Your task to perform on an android device: Go to network settings Image 0: 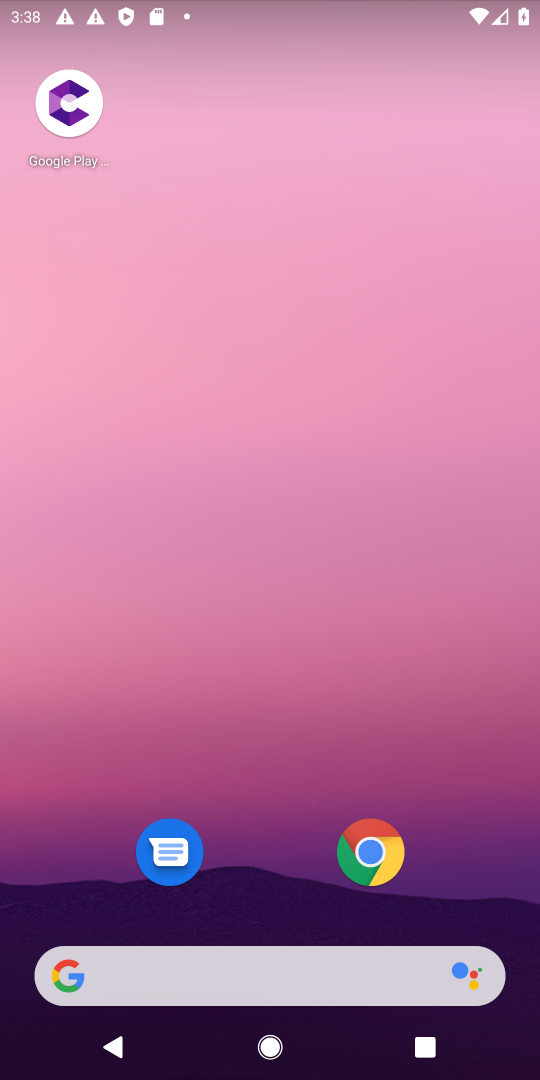
Step 0: drag from (280, 844) to (212, 54)
Your task to perform on an android device: Go to network settings Image 1: 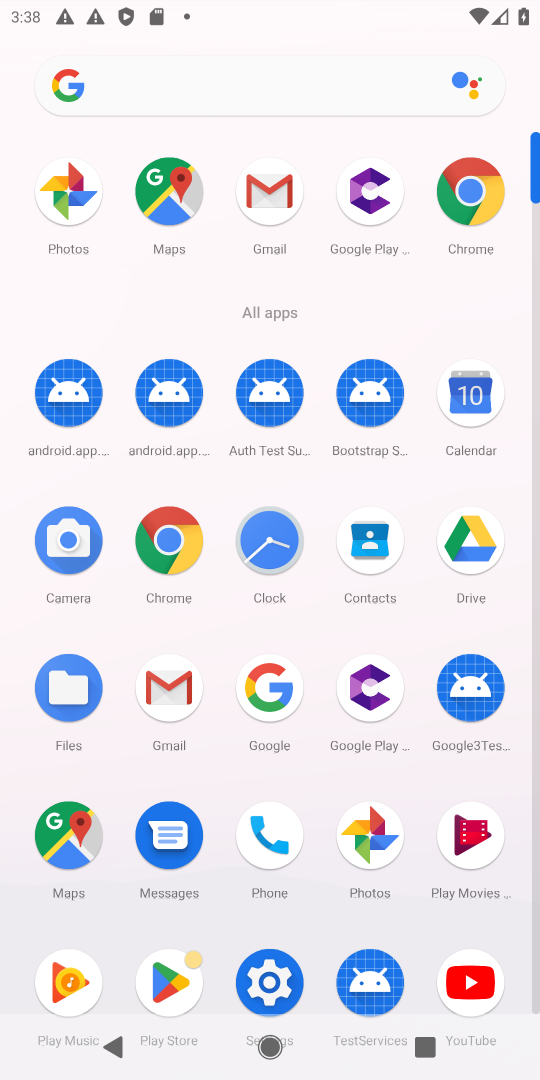
Step 1: click (268, 974)
Your task to perform on an android device: Go to network settings Image 2: 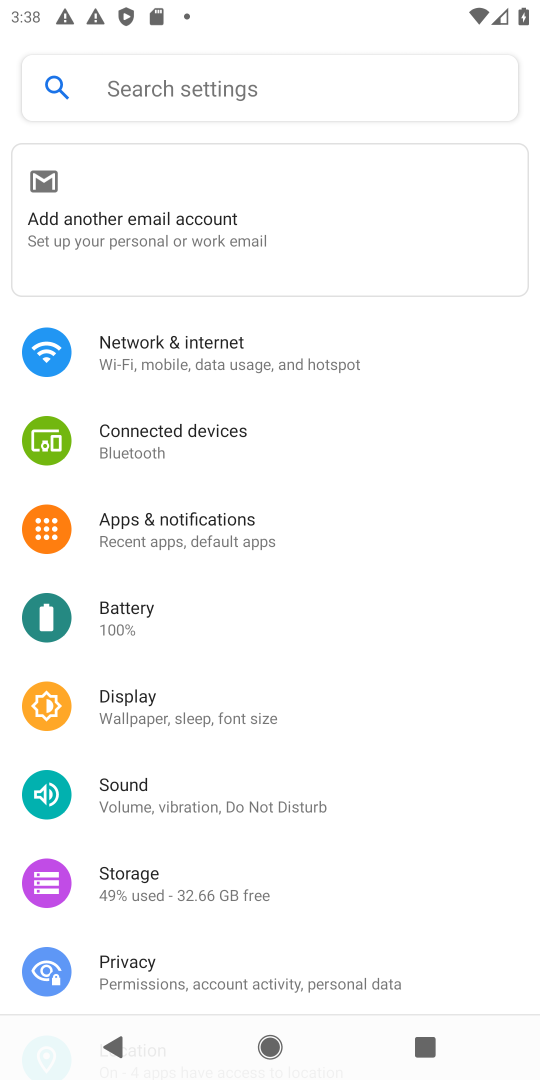
Step 2: click (166, 353)
Your task to perform on an android device: Go to network settings Image 3: 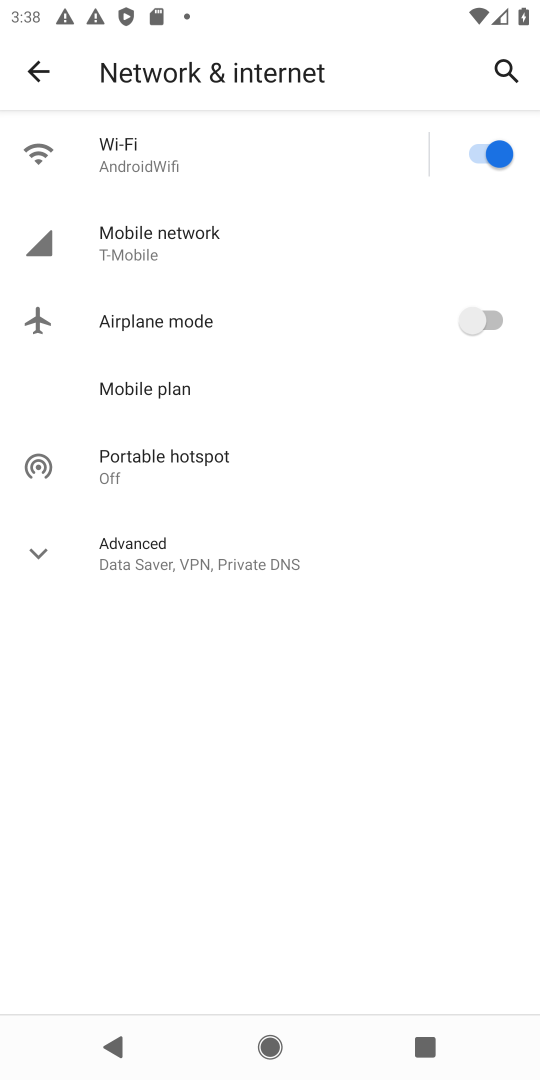
Step 3: task complete